Your task to perform on an android device: Open Google Maps Image 0: 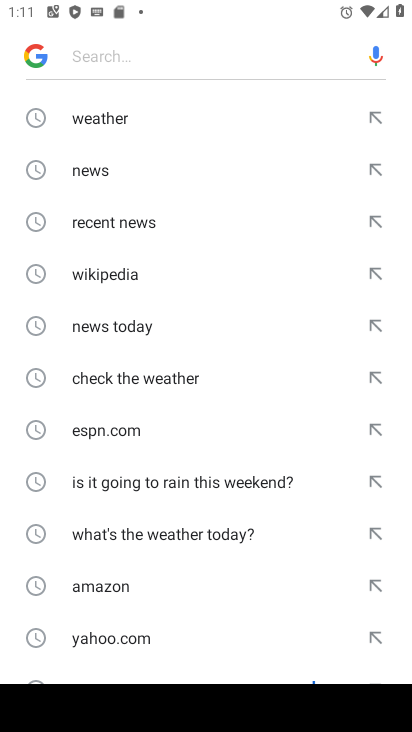
Step 0: press home button
Your task to perform on an android device: Open Google Maps Image 1: 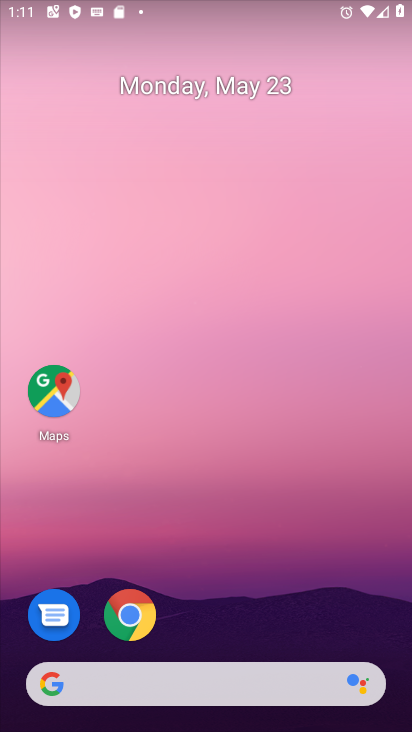
Step 1: drag from (193, 712) to (174, 13)
Your task to perform on an android device: Open Google Maps Image 2: 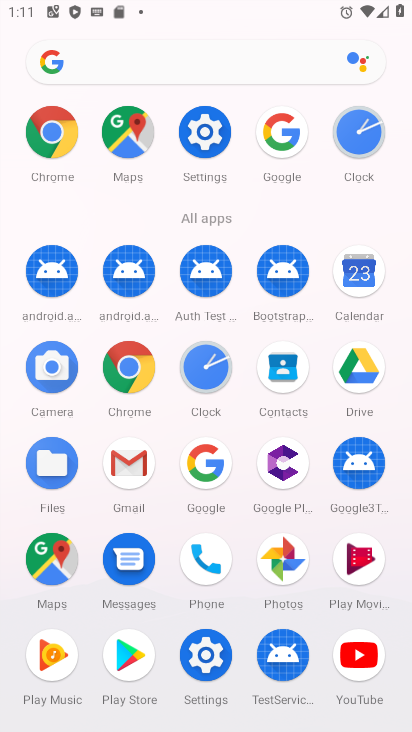
Step 2: click (50, 556)
Your task to perform on an android device: Open Google Maps Image 3: 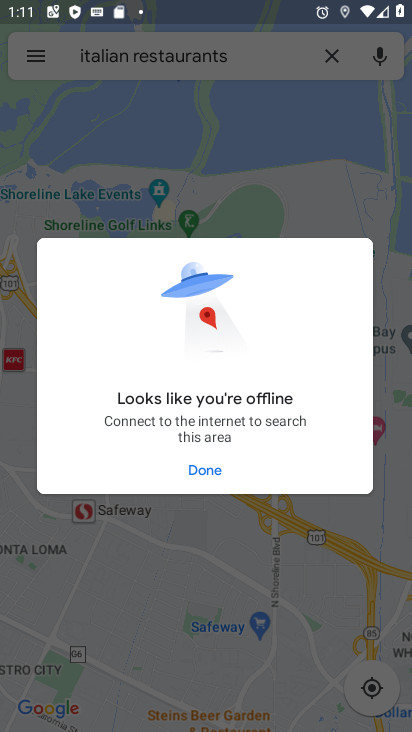
Step 3: click (193, 466)
Your task to perform on an android device: Open Google Maps Image 4: 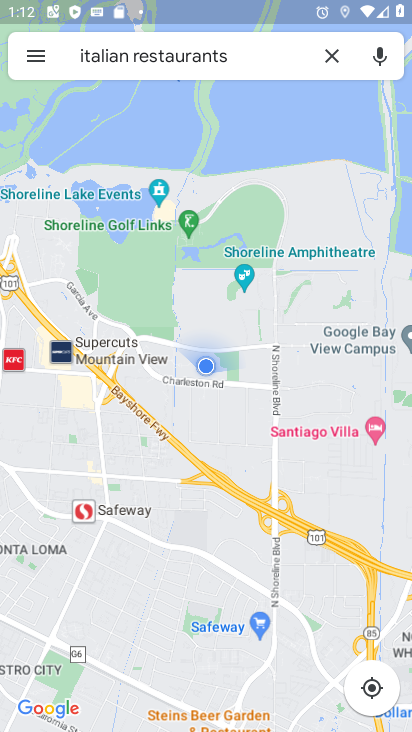
Step 4: task complete